Your task to perform on an android device: Is it going to rain this weekend? Image 0: 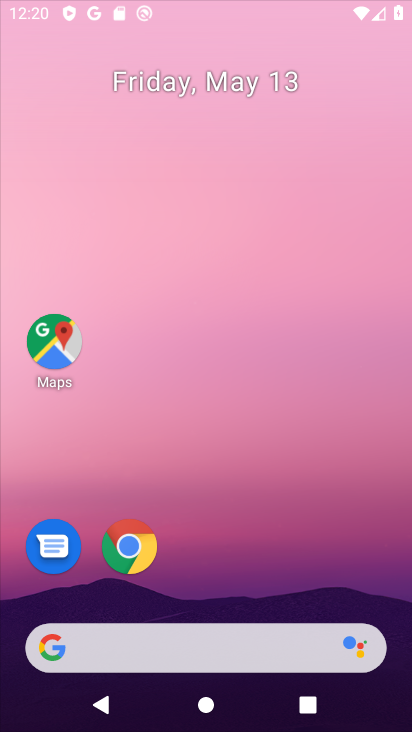
Step 0: click (360, 573)
Your task to perform on an android device: Is it going to rain this weekend? Image 1: 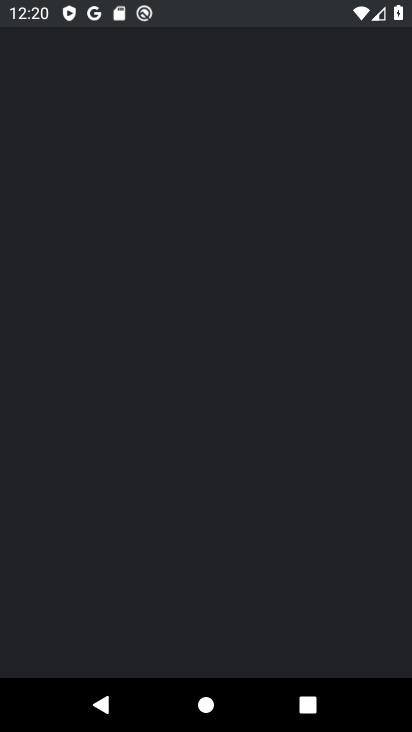
Step 1: drag from (358, 680) to (219, 137)
Your task to perform on an android device: Is it going to rain this weekend? Image 2: 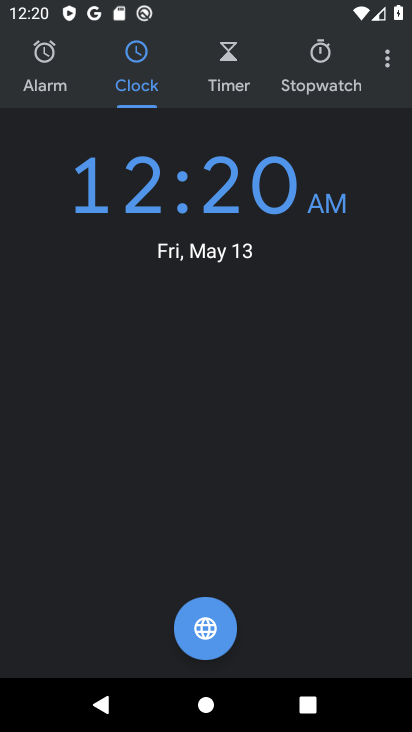
Step 2: click (386, 68)
Your task to perform on an android device: Is it going to rain this weekend? Image 3: 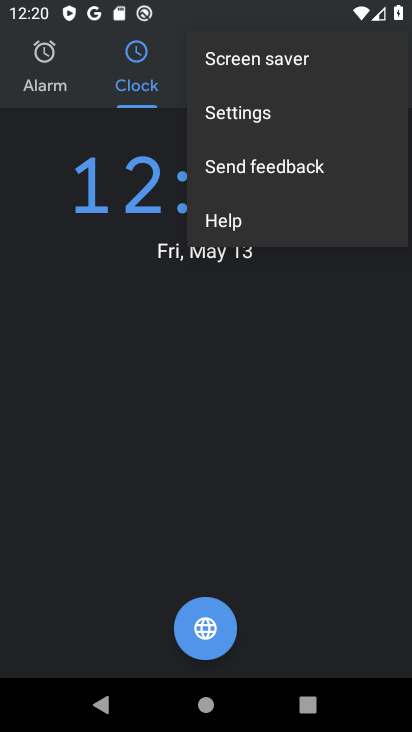
Step 3: click (280, 118)
Your task to perform on an android device: Is it going to rain this weekend? Image 4: 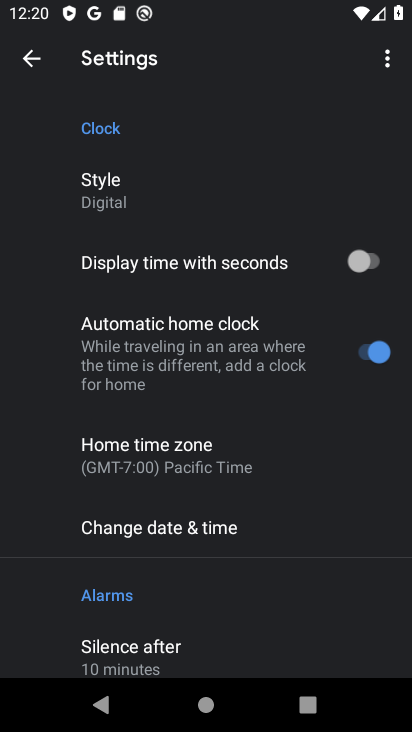
Step 4: click (45, 46)
Your task to perform on an android device: Is it going to rain this weekend? Image 5: 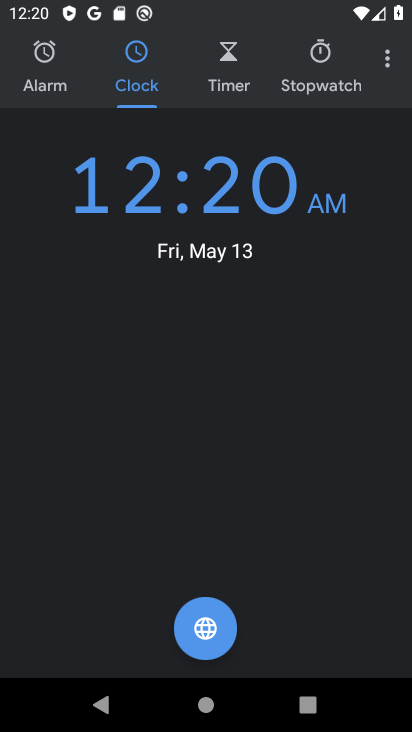
Step 5: press home button
Your task to perform on an android device: Is it going to rain this weekend? Image 6: 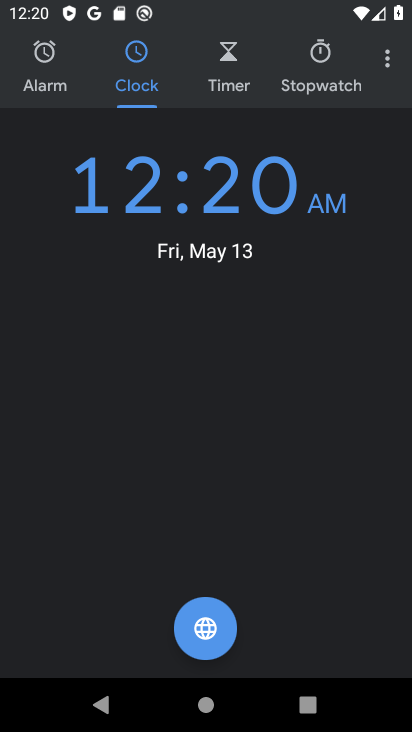
Step 6: press home button
Your task to perform on an android device: Is it going to rain this weekend? Image 7: 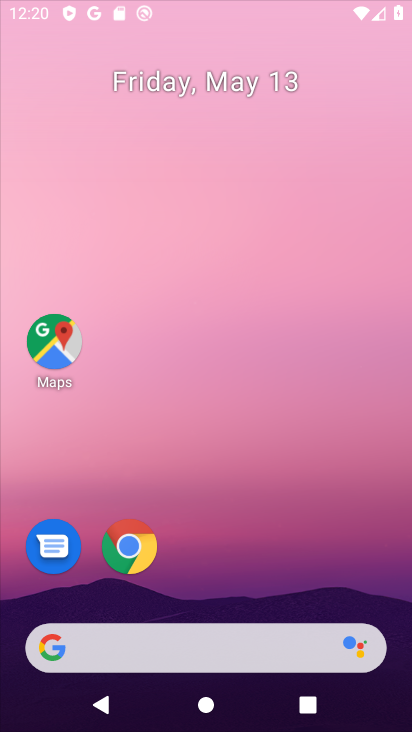
Step 7: press home button
Your task to perform on an android device: Is it going to rain this weekend? Image 8: 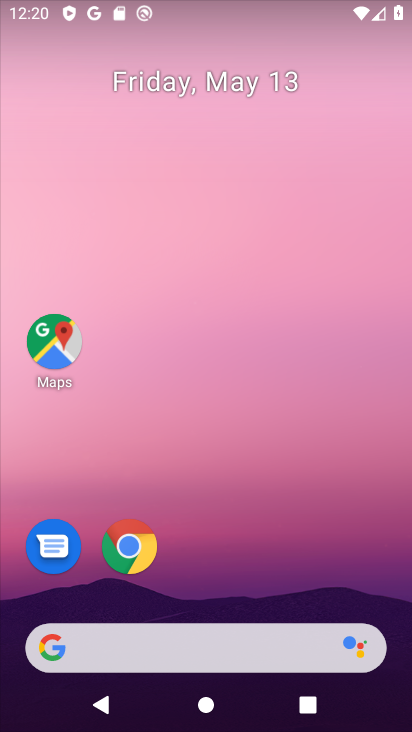
Step 8: drag from (335, 575) to (40, 452)
Your task to perform on an android device: Is it going to rain this weekend? Image 9: 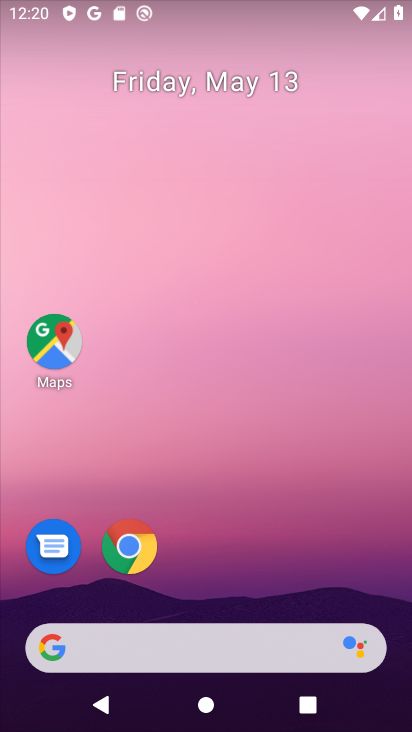
Step 9: drag from (227, 226) to (197, 99)
Your task to perform on an android device: Is it going to rain this weekend? Image 10: 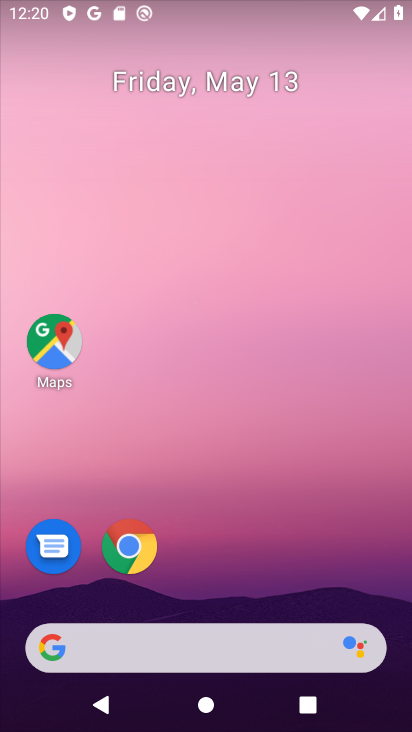
Step 10: drag from (238, 482) to (201, 48)
Your task to perform on an android device: Is it going to rain this weekend? Image 11: 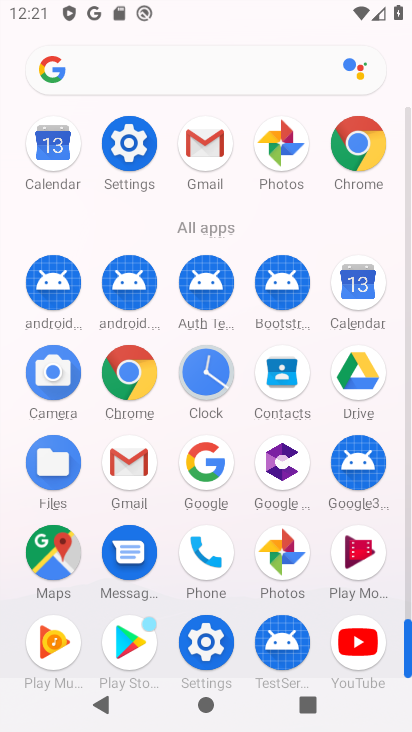
Step 11: press back button
Your task to perform on an android device: Is it going to rain this weekend? Image 12: 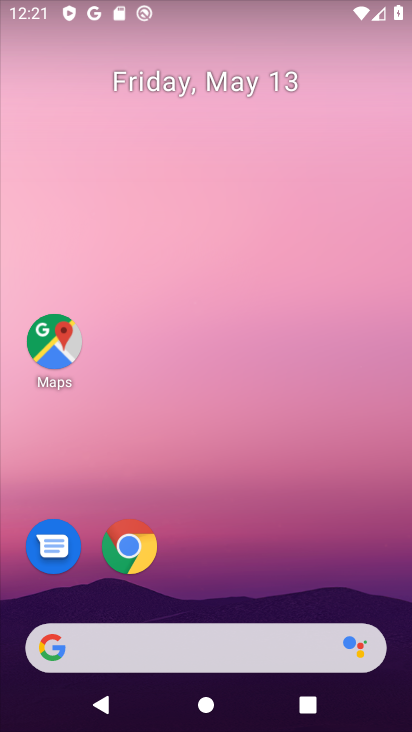
Step 12: drag from (118, 319) to (393, 491)
Your task to perform on an android device: Is it going to rain this weekend? Image 13: 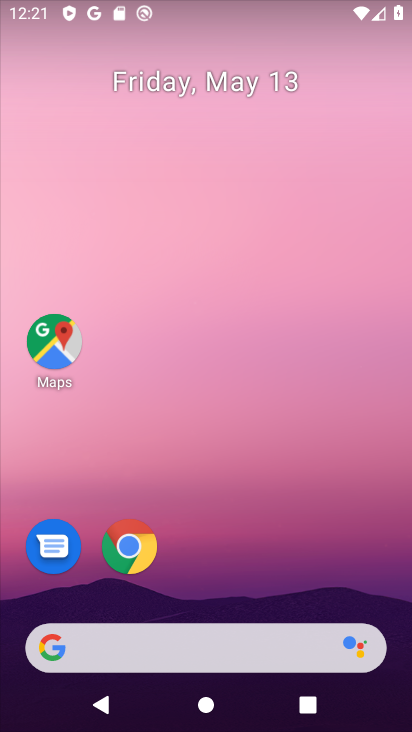
Step 13: drag from (10, 215) to (380, 189)
Your task to perform on an android device: Is it going to rain this weekend? Image 14: 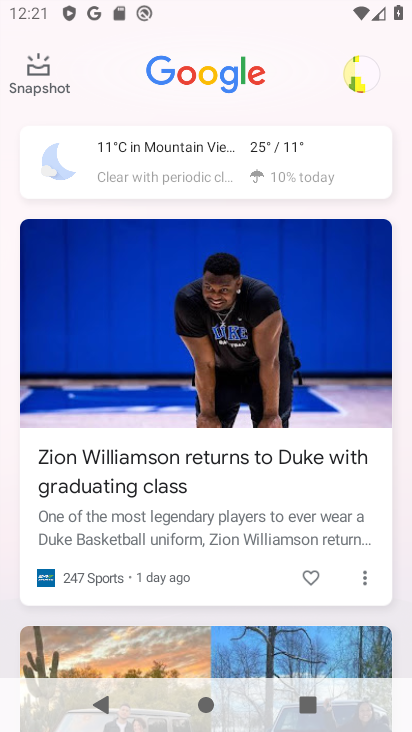
Step 14: drag from (237, 381) to (157, 89)
Your task to perform on an android device: Is it going to rain this weekend? Image 15: 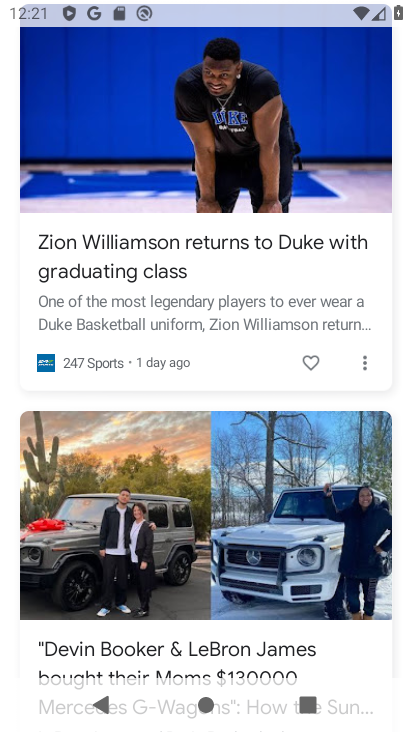
Step 15: drag from (147, 441) to (164, 256)
Your task to perform on an android device: Is it going to rain this weekend? Image 16: 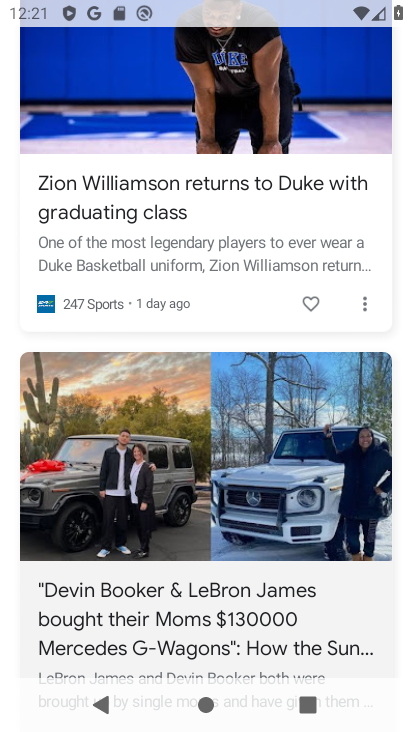
Step 16: drag from (151, 411) to (269, 488)
Your task to perform on an android device: Is it going to rain this weekend? Image 17: 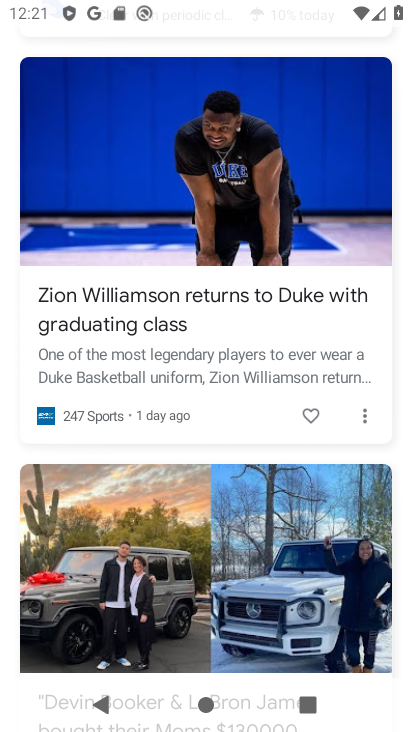
Step 17: drag from (125, 237) to (149, 514)
Your task to perform on an android device: Is it going to rain this weekend? Image 18: 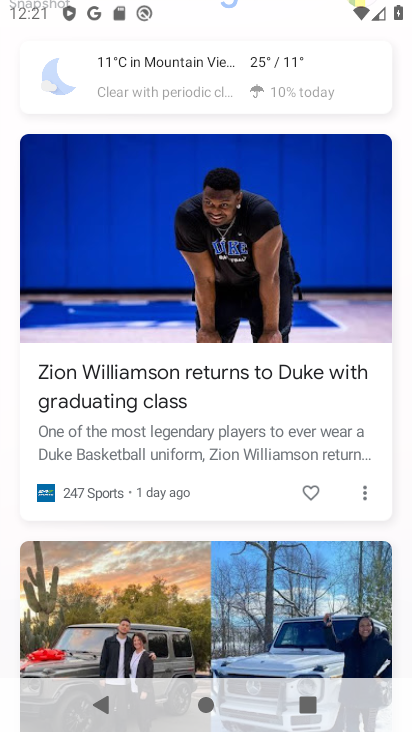
Step 18: drag from (58, 360) to (166, 459)
Your task to perform on an android device: Is it going to rain this weekend? Image 19: 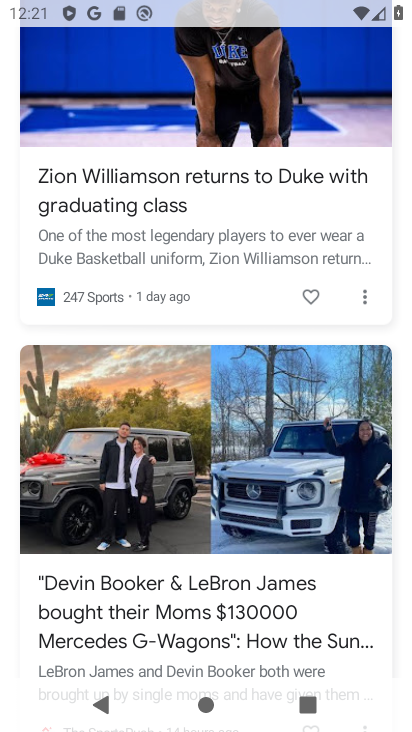
Step 19: drag from (131, 205) to (247, 562)
Your task to perform on an android device: Is it going to rain this weekend? Image 20: 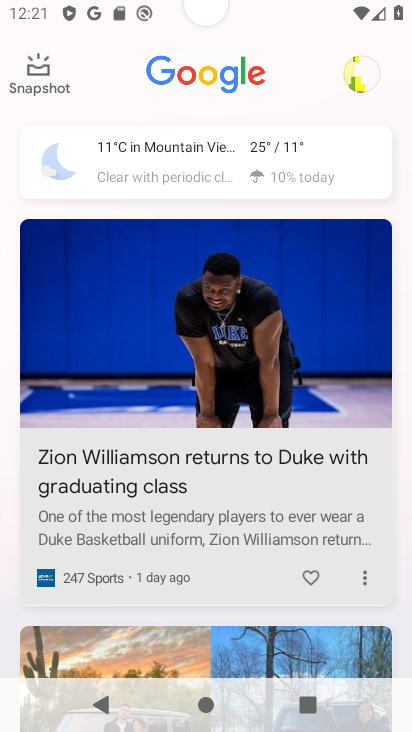
Step 20: drag from (237, 441) to (210, 491)
Your task to perform on an android device: Is it going to rain this weekend? Image 21: 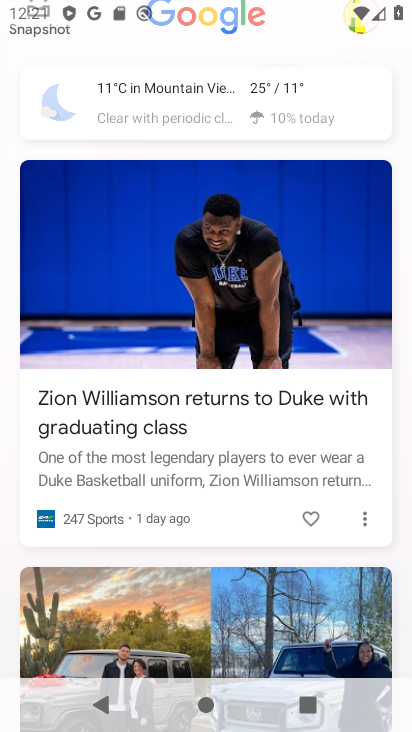
Step 21: drag from (144, 276) to (270, 654)
Your task to perform on an android device: Is it going to rain this weekend? Image 22: 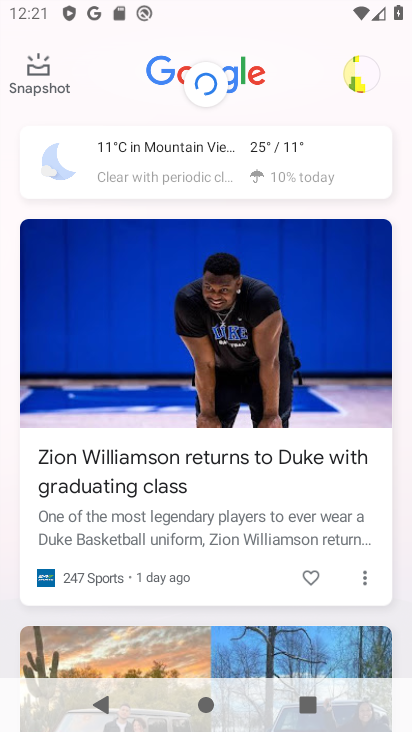
Step 22: drag from (159, 185) to (205, 467)
Your task to perform on an android device: Is it going to rain this weekend? Image 23: 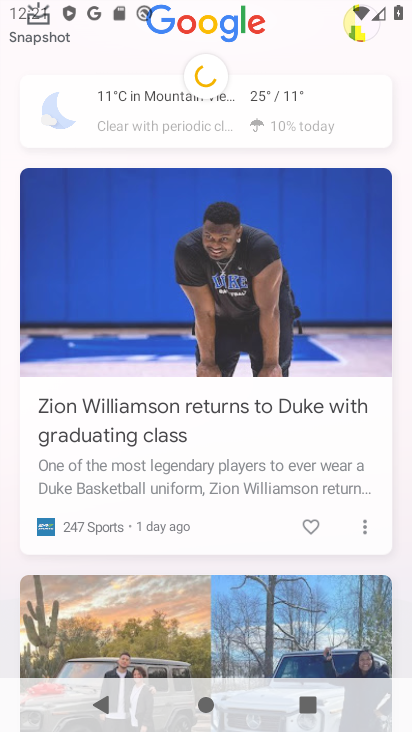
Step 23: drag from (147, 230) to (238, 428)
Your task to perform on an android device: Is it going to rain this weekend? Image 24: 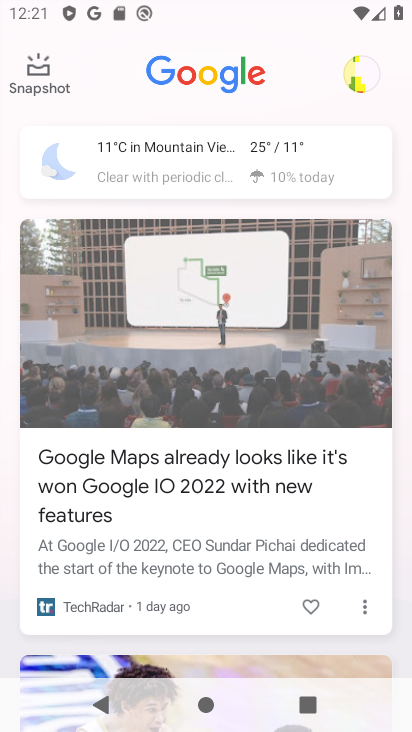
Step 24: drag from (210, 95) to (275, 402)
Your task to perform on an android device: Is it going to rain this weekend? Image 25: 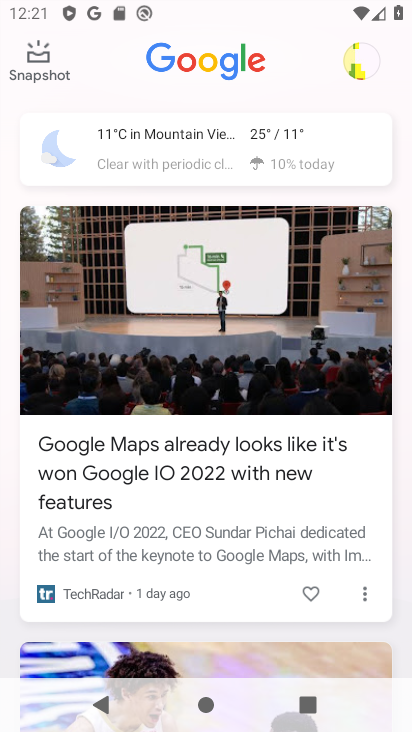
Step 25: drag from (174, 174) to (224, 471)
Your task to perform on an android device: Is it going to rain this weekend? Image 26: 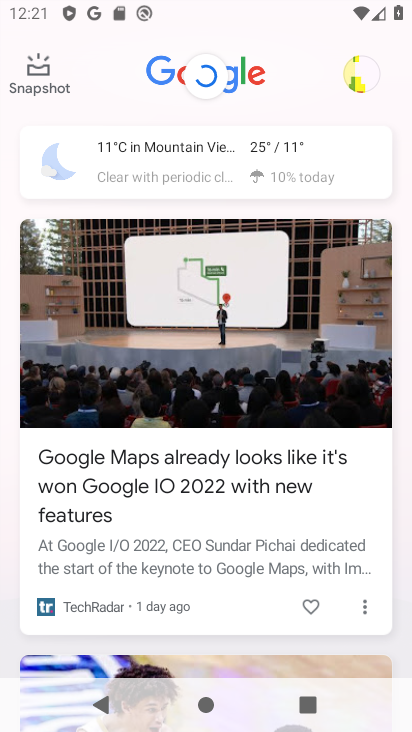
Step 26: drag from (155, 309) to (262, 482)
Your task to perform on an android device: Is it going to rain this weekend? Image 27: 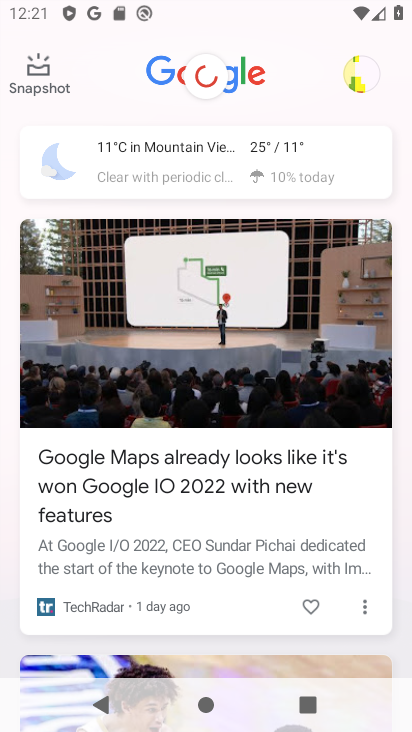
Step 27: drag from (145, 139) to (193, 467)
Your task to perform on an android device: Is it going to rain this weekend? Image 28: 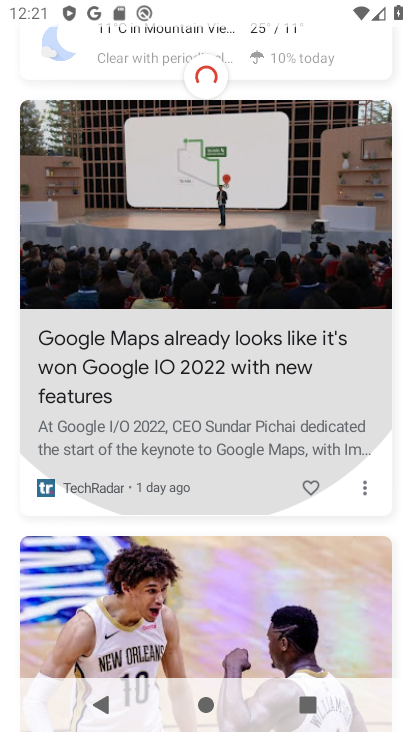
Step 28: drag from (211, 529) to (197, 463)
Your task to perform on an android device: Is it going to rain this weekend? Image 29: 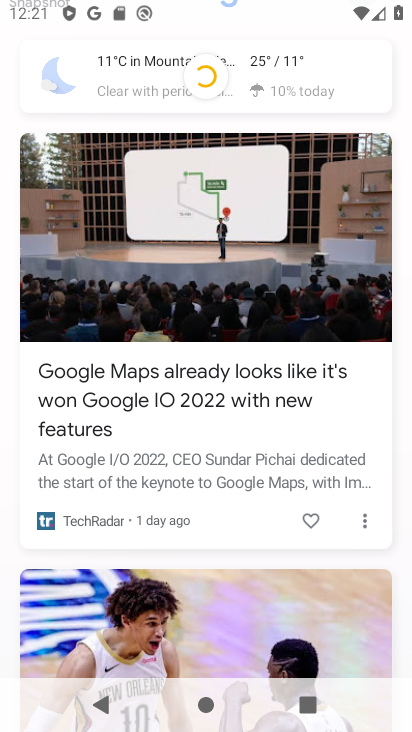
Step 29: drag from (208, 438) to (266, 431)
Your task to perform on an android device: Is it going to rain this weekend? Image 30: 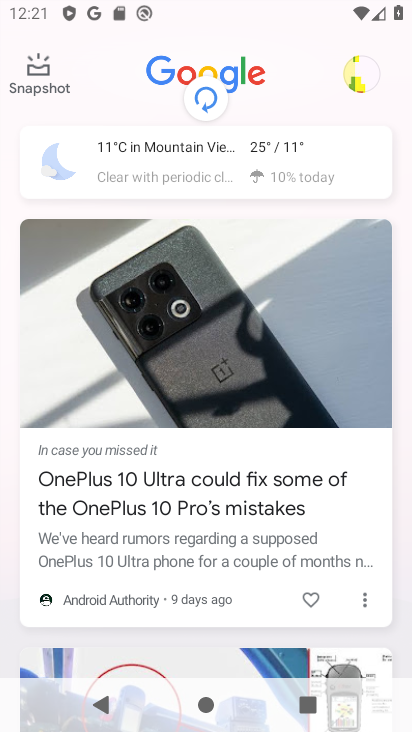
Step 30: drag from (201, 175) to (281, 468)
Your task to perform on an android device: Is it going to rain this weekend? Image 31: 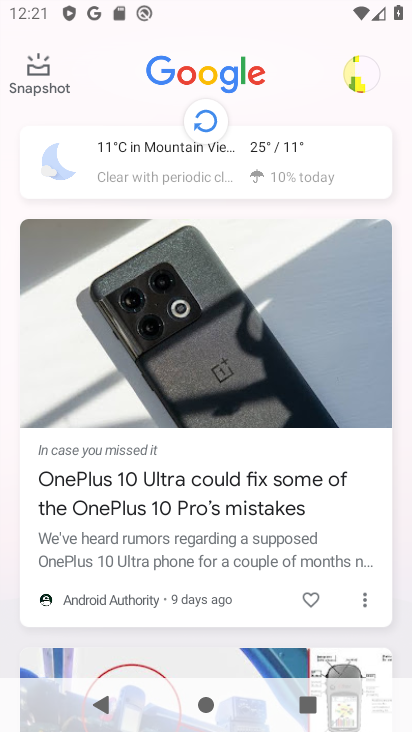
Step 31: drag from (147, 189) to (214, 412)
Your task to perform on an android device: Is it going to rain this weekend? Image 32: 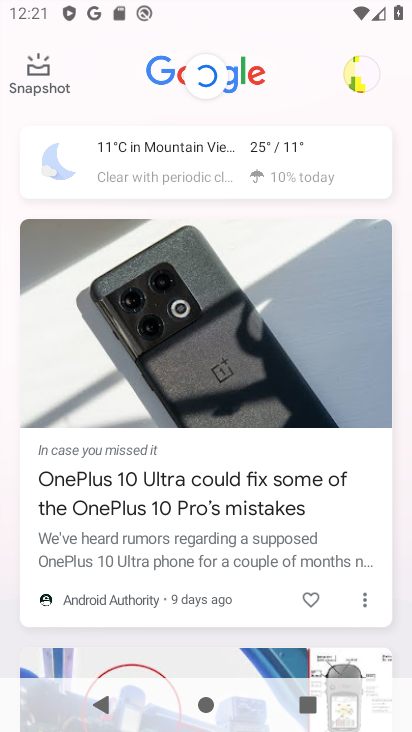
Step 32: drag from (134, 157) to (261, 449)
Your task to perform on an android device: Is it going to rain this weekend? Image 33: 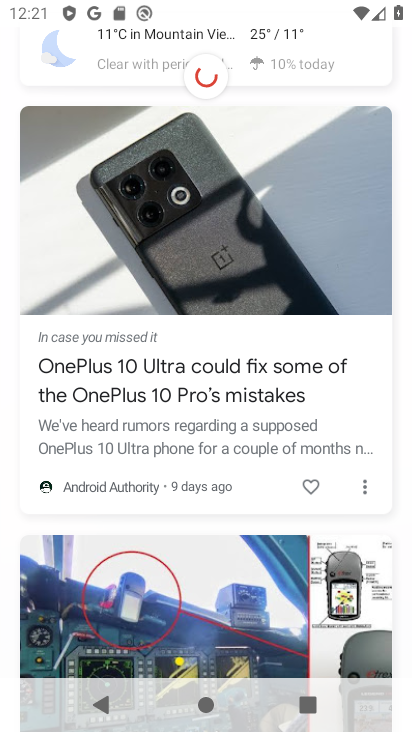
Step 33: drag from (196, 220) to (257, 526)
Your task to perform on an android device: Is it going to rain this weekend? Image 34: 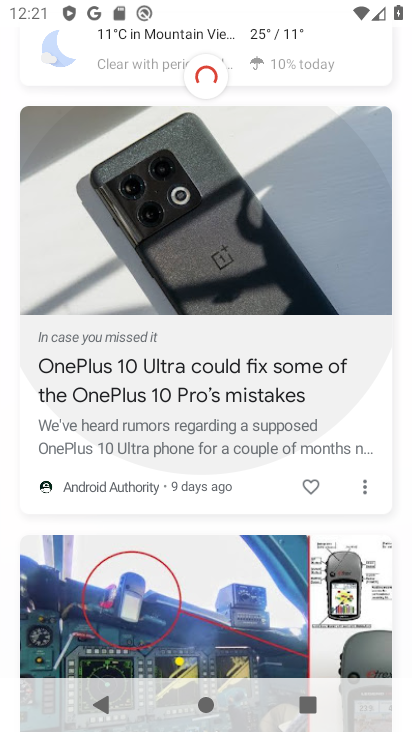
Step 34: drag from (206, 536) to (146, 232)
Your task to perform on an android device: Is it going to rain this weekend? Image 35: 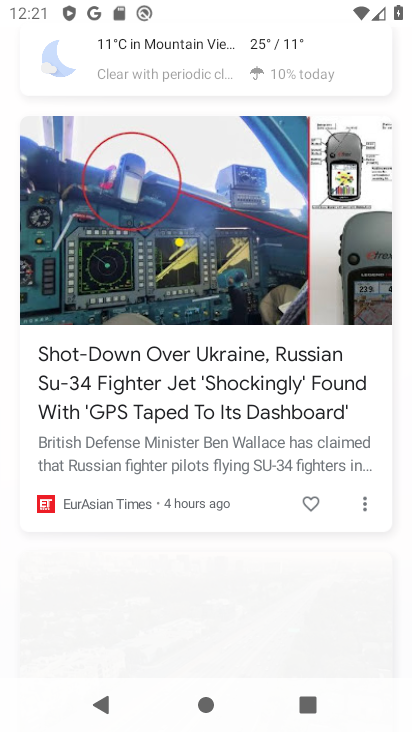
Step 35: drag from (187, 390) to (192, 167)
Your task to perform on an android device: Is it going to rain this weekend? Image 36: 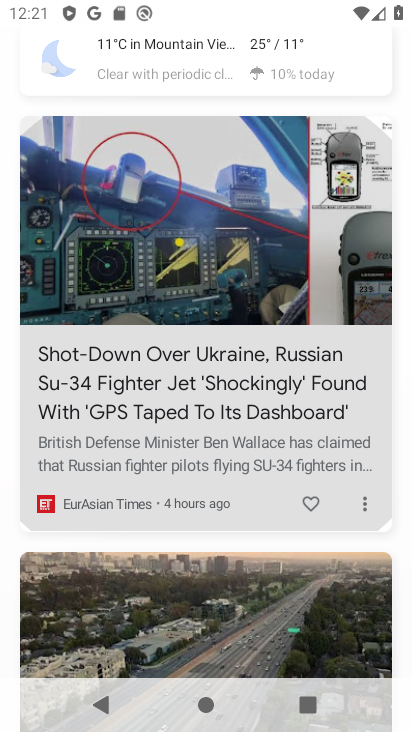
Step 36: drag from (236, 387) to (253, 117)
Your task to perform on an android device: Is it going to rain this weekend? Image 37: 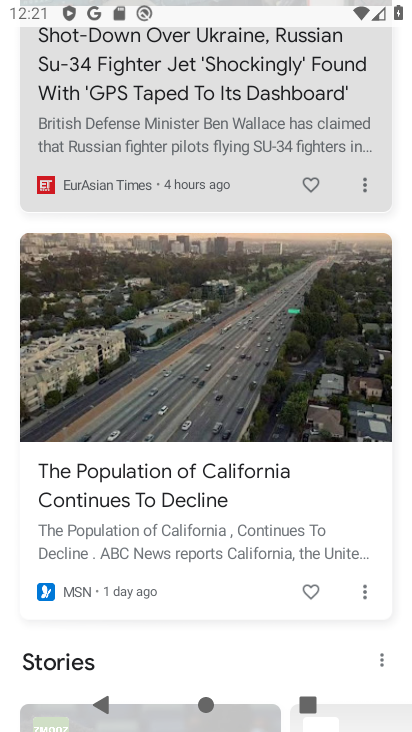
Step 37: drag from (230, 369) to (266, 97)
Your task to perform on an android device: Is it going to rain this weekend? Image 38: 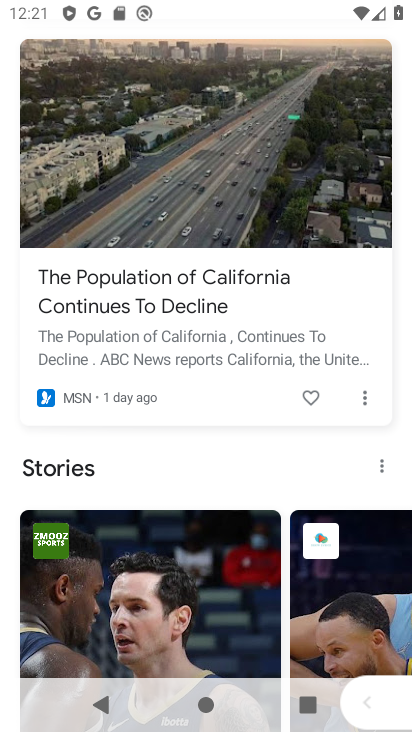
Step 38: drag from (272, 424) to (274, 115)
Your task to perform on an android device: Is it going to rain this weekend? Image 39: 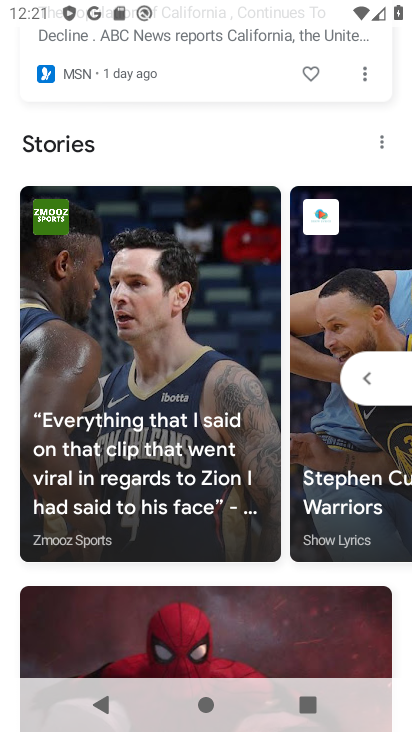
Step 39: drag from (199, 348) to (214, 409)
Your task to perform on an android device: Is it going to rain this weekend? Image 40: 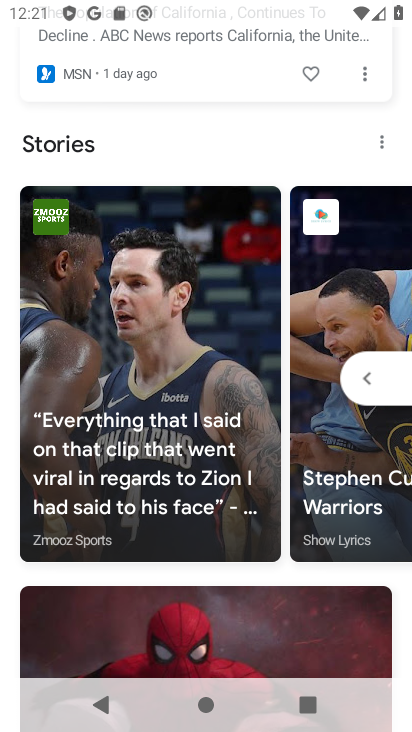
Step 40: drag from (235, 484) to (168, 513)
Your task to perform on an android device: Is it going to rain this weekend? Image 41: 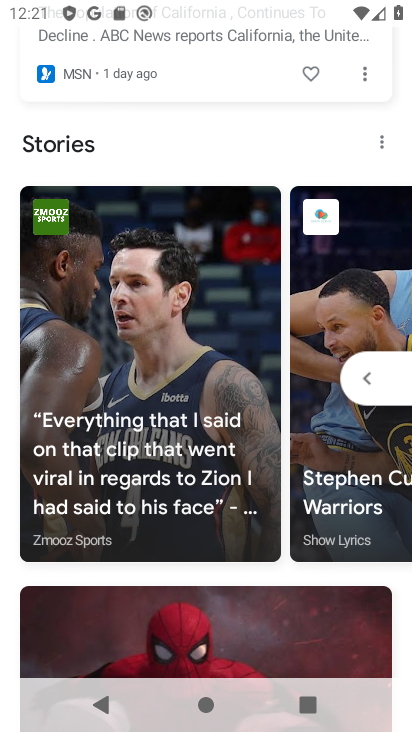
Step 41: drag from (156, 239) to (227, 500)
Your task to perform on an android device: Is it going to rain this weekend? Image 42: 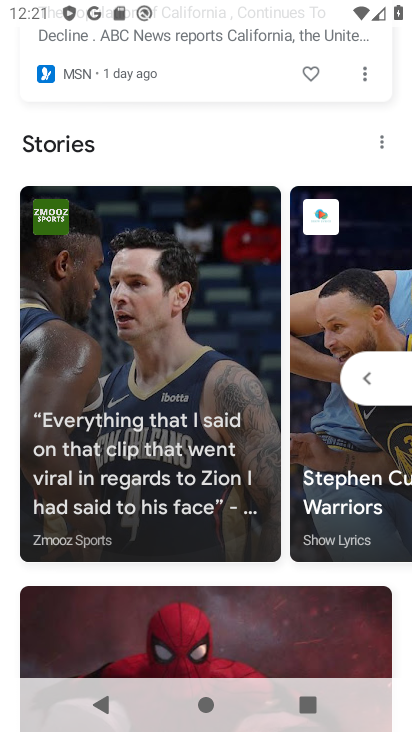
Step 42: drag from (225, 373) to (251, 530)
Your task to perform on an android device: Is it going to rain this weekend? Image 43: 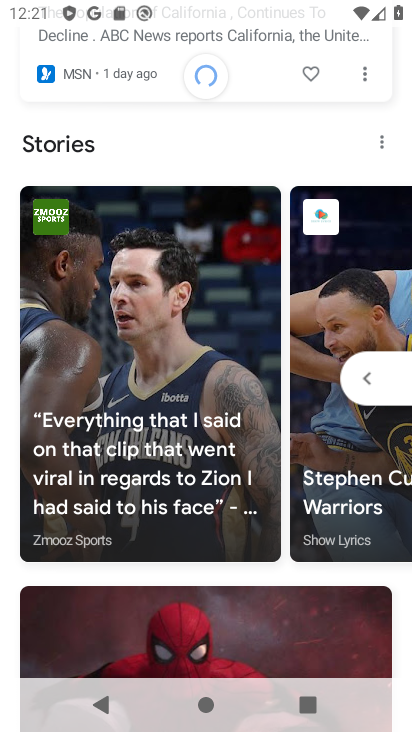
Step 43: drag from (195, 379) to (211, 534)
Your task to perform on an android device: Is it going to rain this weekend? Image 44: 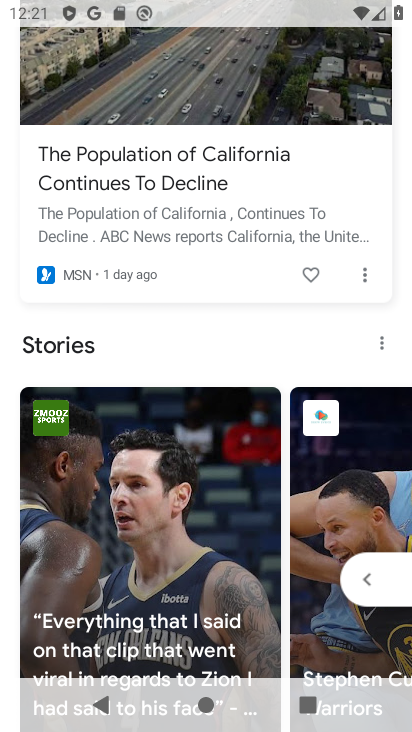
Step 44: drag from (282, 460) to (217, 353)
Your task to perform on an android device: Is it going to rain this weekend? Image 45: 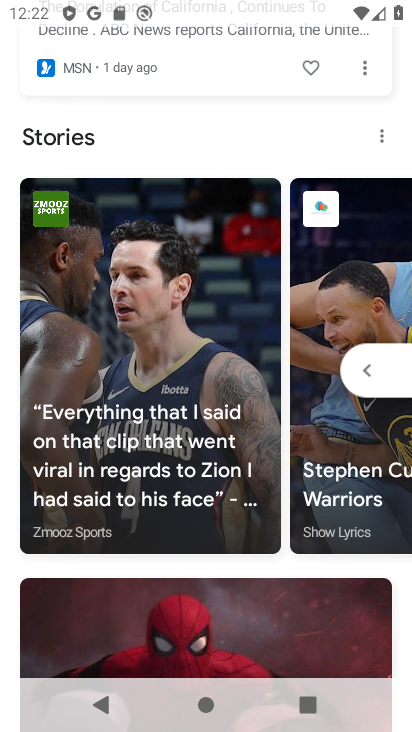
Step 45: drag from (282, 463) to (277, 141)
Your task to perform on an android device: Is it going to rain this weekend? Image 46: 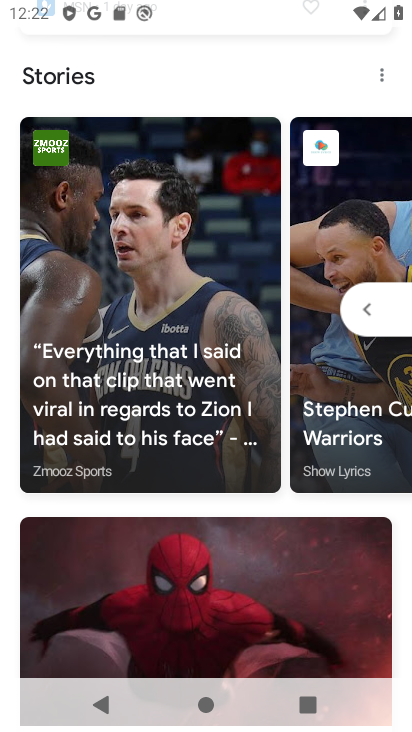
Step 46: drag from (342, 185) to (277, 485)
Your task to perform on an android device: Is it going to rain this weekend? Image 47: 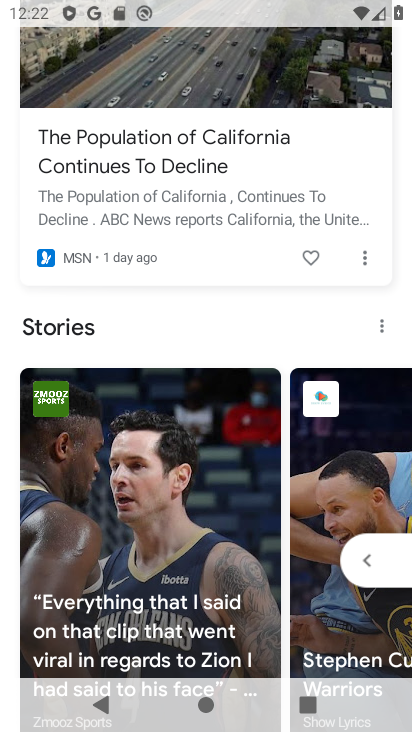
Step 47: drag from (276, 672) to (261, 547)
Your task to perform on an android device: Is it going to rain this weekend? Image 48: 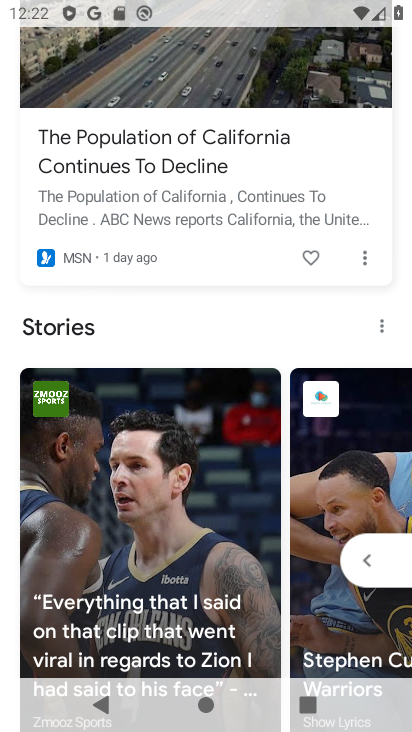
Step 48: drag from (182, 117) to (224, 417)
Your task to perform on an android device: Is it going to rain this weekend? Image 49: 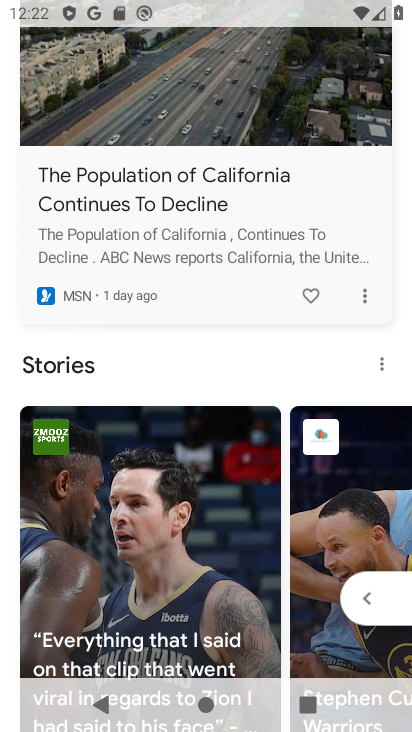
Step 49: drag from (184, 86) to (214, 389)
Your task to perform on an android device: Is it going to rain this weekend? Image 50: 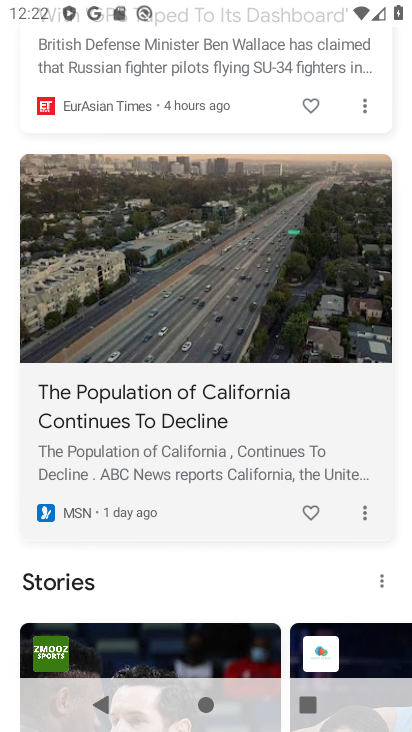
Step 50: drag from (174, 153) to (219, 457)
Your task to perform on an android device: Is it going to rain this weekend? Image 51: 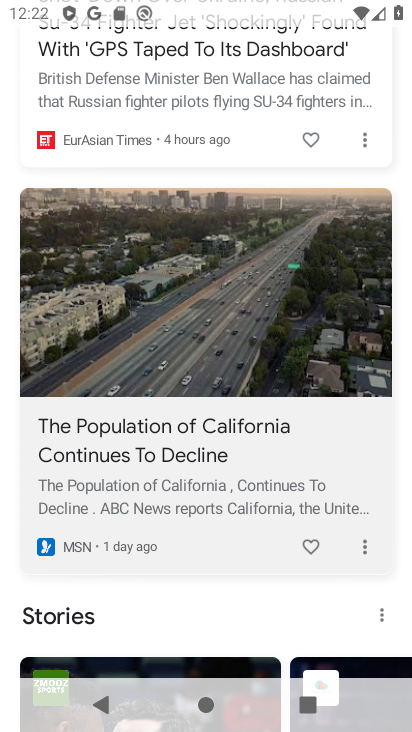
Step 51: drag from (197, 136) to (272, 372)
Your task to perform on an android device: Is it going to rain this weekend? Image 52: 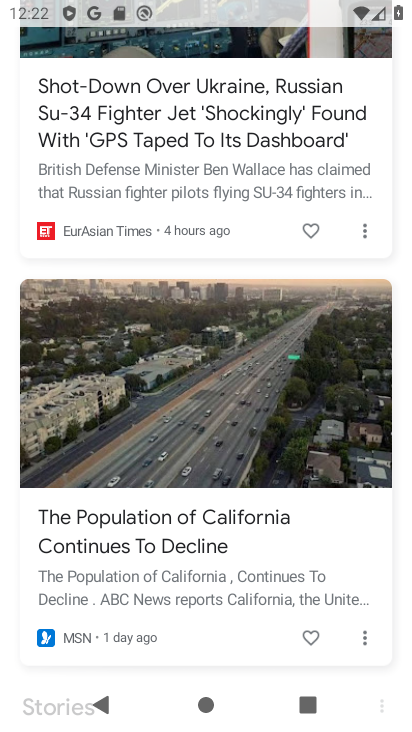
Step 52: click (217, 94)
Your task to perform on an android device: Is it going to rain this weekend? Image 53: 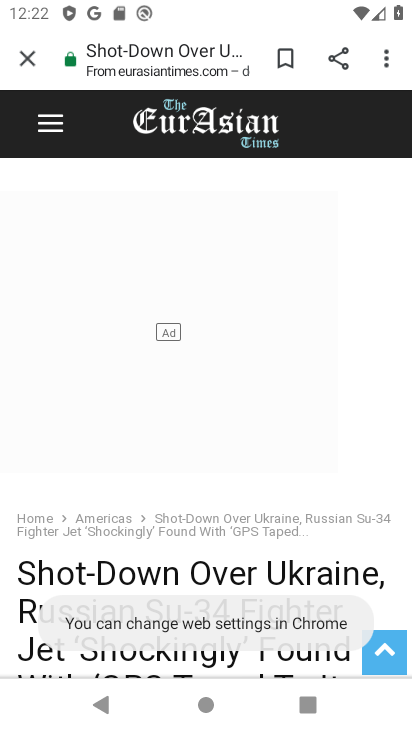
Step 53: click (222, 73)
Your task to perform on an android device: Is it going to rain this weekend? Image 54: 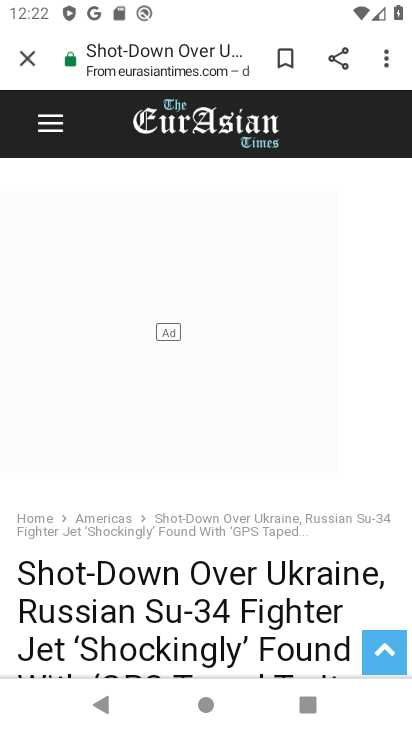
Step 54: task complete